Your task to perform on an android device: move an email to a new category in the gmail app Image 0: 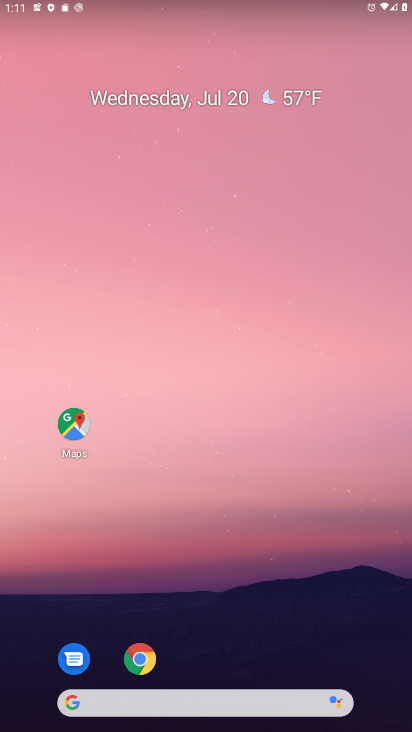
Step 0: drag from (209, 672) to (275, 9)
Your task to perform on an android device: move an email to a new category in the gmail app Image 1: 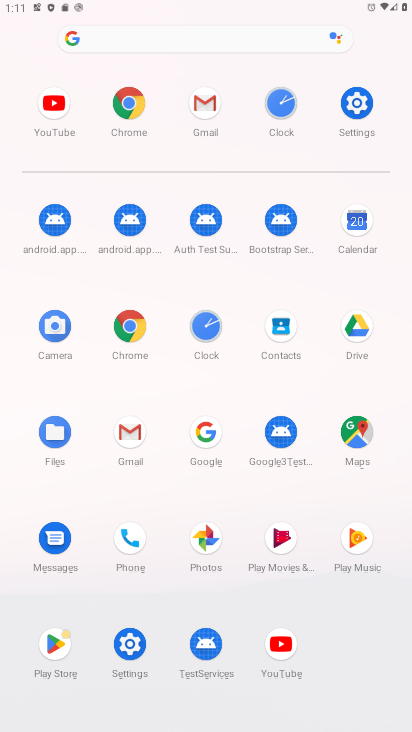
Step 1: click (129, 421)
Your task to perform on an android device: move an email to a new category in the gmail app Image 2: 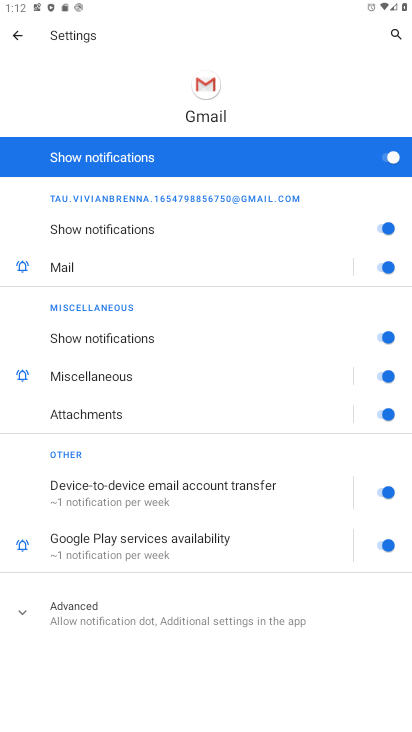
Step 2: click (8, 35)
Your task to perform on an android device: move an email to a new category in the gmail app Image 3: 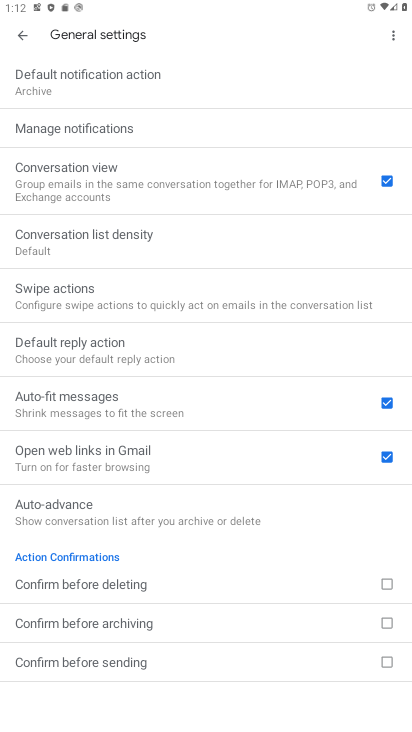
Step 3: click (29, 29)
Your task to perform on an android device: move an email to a new category in the gmail app Image 4: 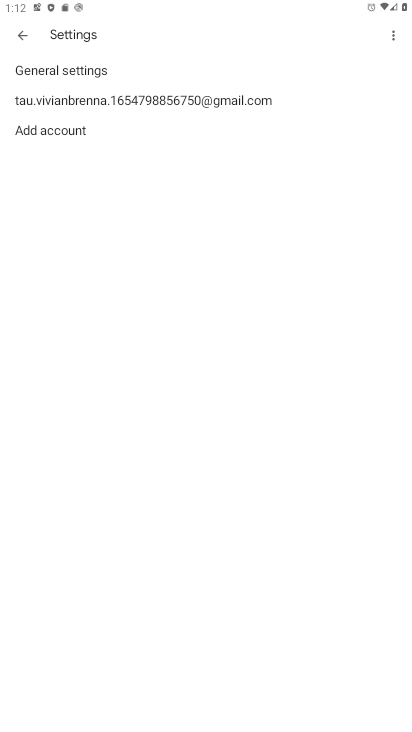
Step 4: click (22, 31)
Your task to perform on an android device: move an email to a new category in the gmail app Image 5: 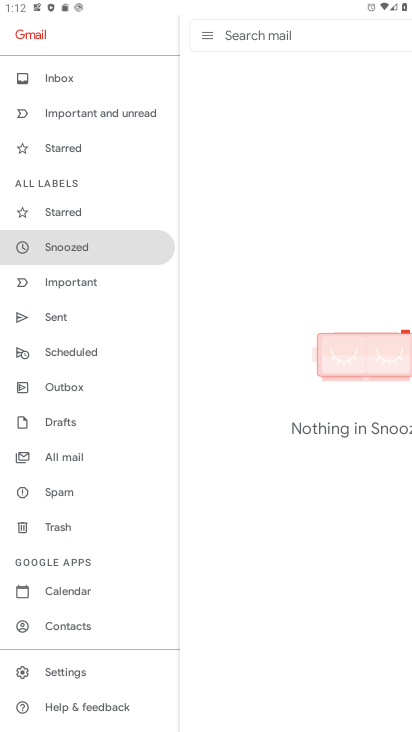
Step 5: click (88, 452)
Your task to perform on an android device: move an email to a new category in the gmail app Image 6: 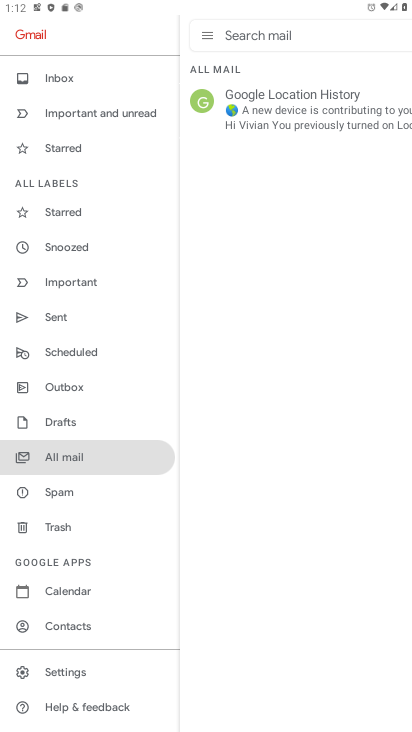
Step 6: click (204, 95)
Your task to perform on an android device: move an email to a new category in the gmail app Image 7: 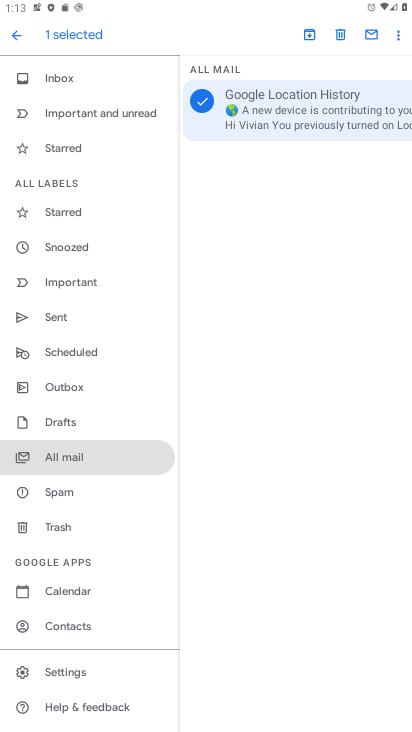
Step 7: click (395, 28)
Your task to perform on an android device: move an email to a new category in the gmail app Image 8: 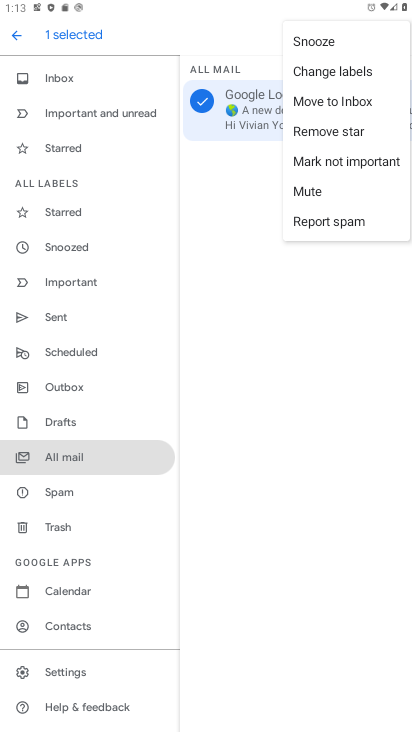
Step 8: click (344, 100)
Your task to perform on an android device: move an email to a new category in the gmail app Image 9: 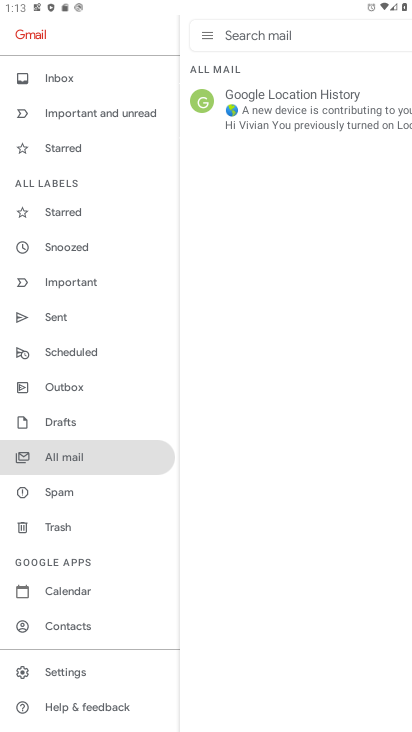
Step 9: task complete